Your task to perform on an android device: turn off javascript in the chrome app Image 0: 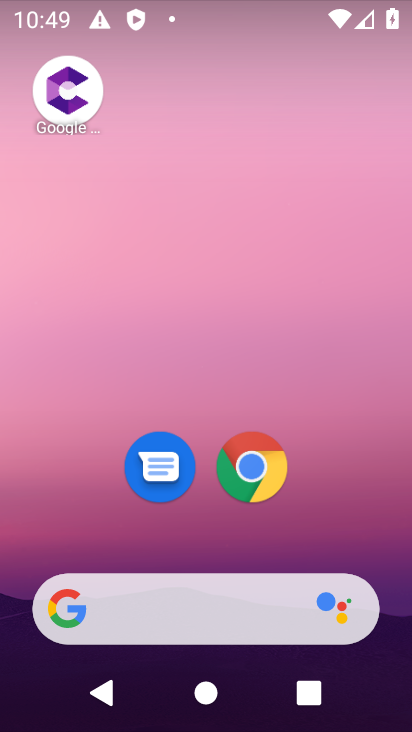
Step 0: drag from (293, 675) to (250, 289)
Your task to perform on an android device: turn off javascript in the chrome app Image 1: 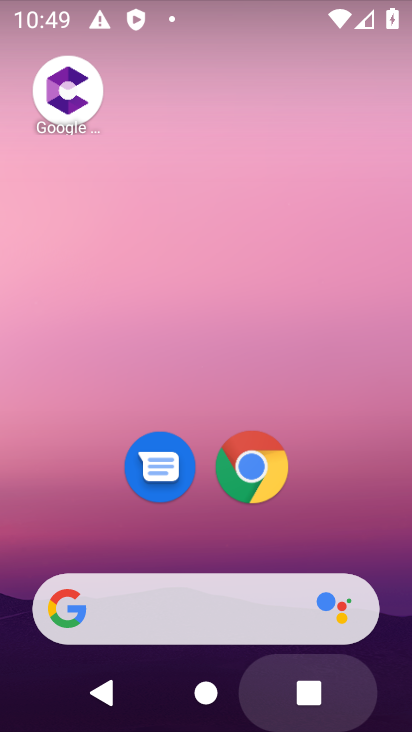
Step 1: drag from (251, 573) to (223, 173)
Your task to perform on an android device: turn off javascript in the chrome app Image 2: 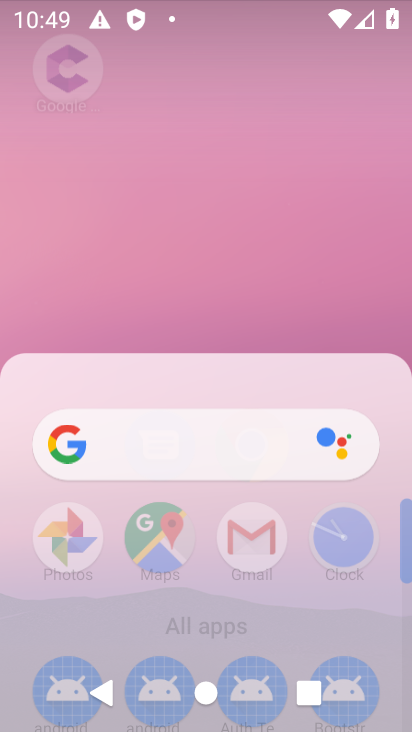
Step 2: drag from (268, 537) to (248, 166)
Your task to perform on an android device: turn off javascript in the chrome app Image 3: 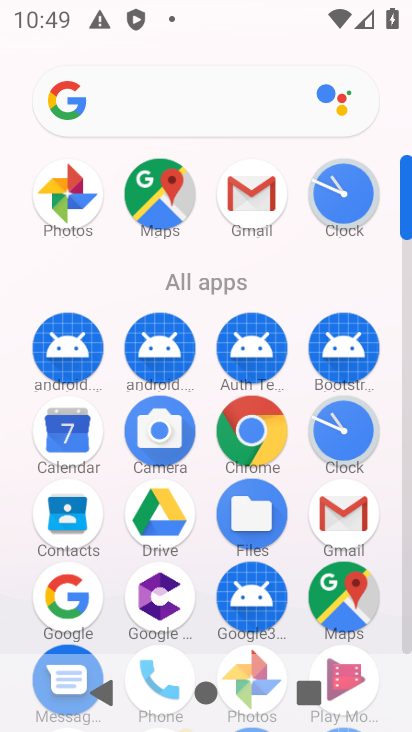
Step 3: drag from (220, 333) to (220, 289)
Your task to perform on an android device: turn off javascript in the chrome app Image 4: 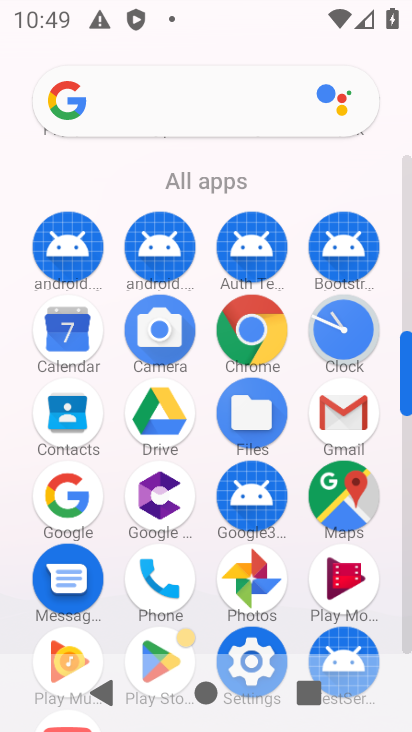
Step 4: drag from (266, 497) to (266, 205)
Your task to perform on an android device: turn off javascript in the chrome app Image 5: 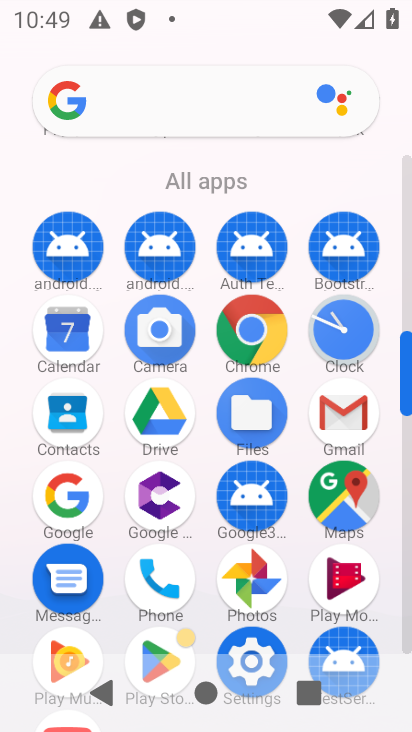
Step 5: click (235, 331)
Your task to perform on an android device: turn off javascript in the chrome app Image 6: 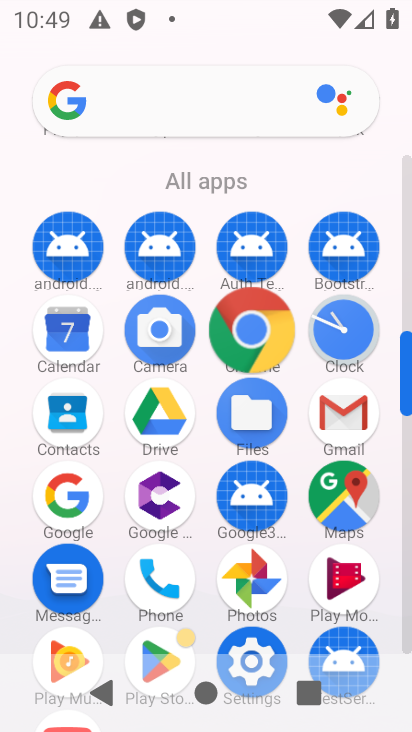
Step 6: click (241, 331)
Your task to perform on an android device: turn off javascript in the chrome app Image 7: 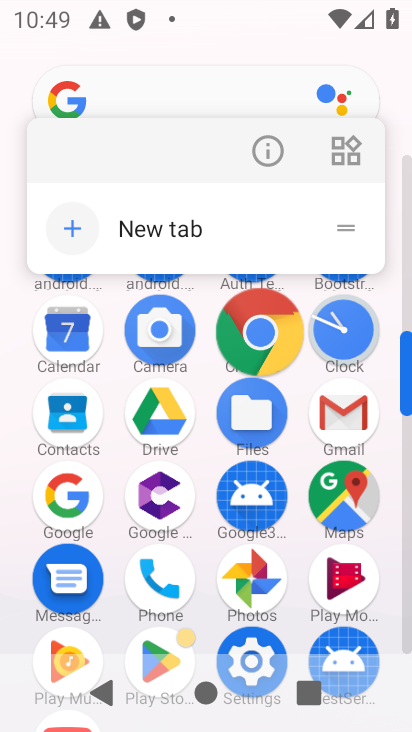
Step 7: click (248, 331)
Your task to perform on an android device: turn off javascript in the chrome app Image 8: 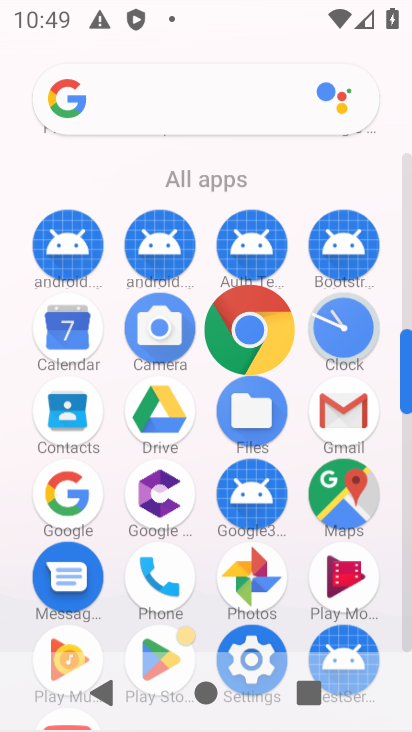
Step 8: click (264, 343)
Your task to perform on an android device: turn off javascript in the chrome app Image 9: 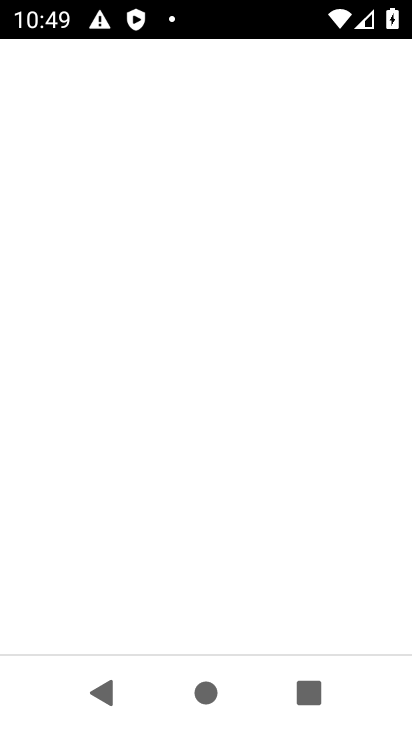
Step 9: click (264, 341)
Your task to perform on an android device: turn off javascript in the chrome app Image 10: 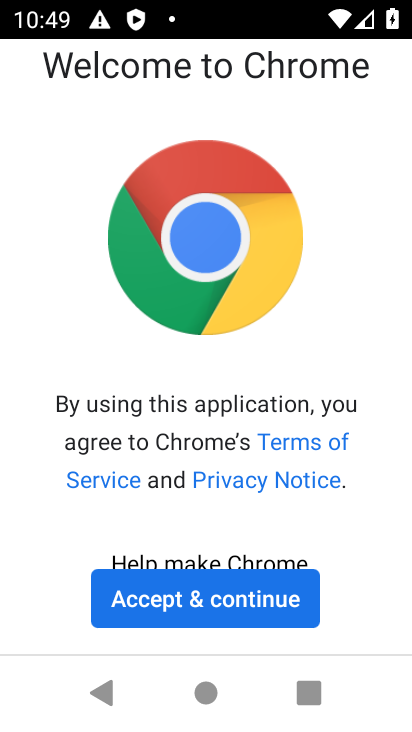
Step 10: click (217, 620)
Your task to perform on an android device: turn off javascript in the chrome app Image 11: 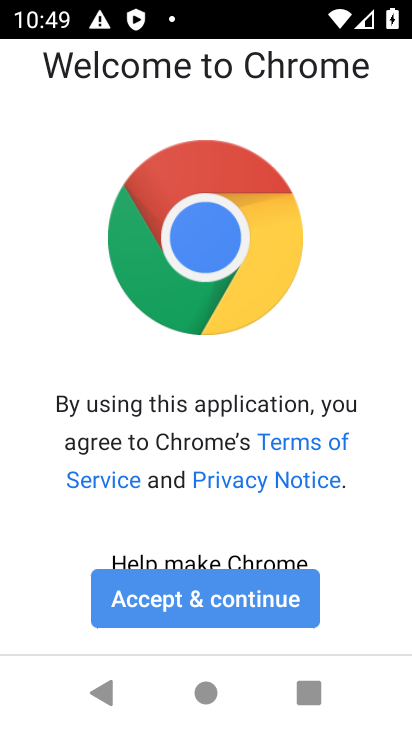
Step 11: click (236, 602)
Your task to perform on an android device: turn off javascript in the chrome app Image 12: 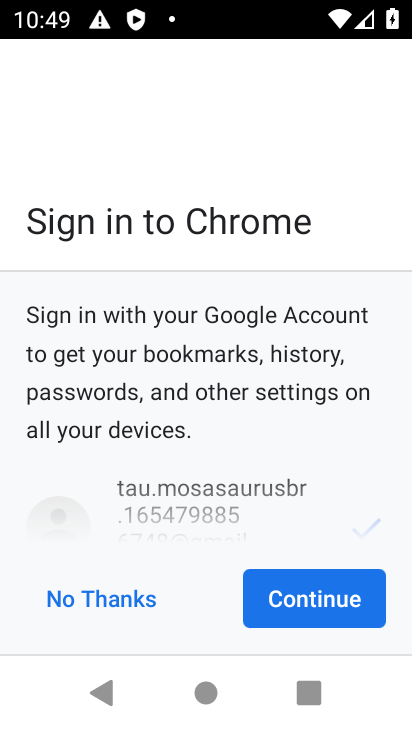
Step 12: click (93, 615)
Your task to perform on an android device: turn off javascript in the chrome app Image 13: 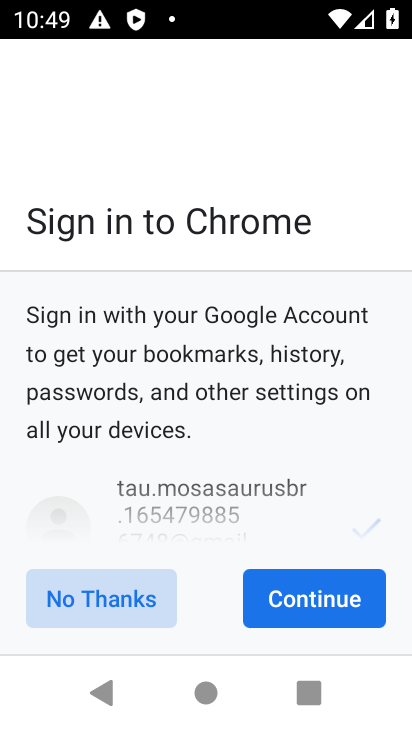
Step 13: click (95, 602)
Your task to perform on an android device: turn off javascript in the chrome app Image 14: 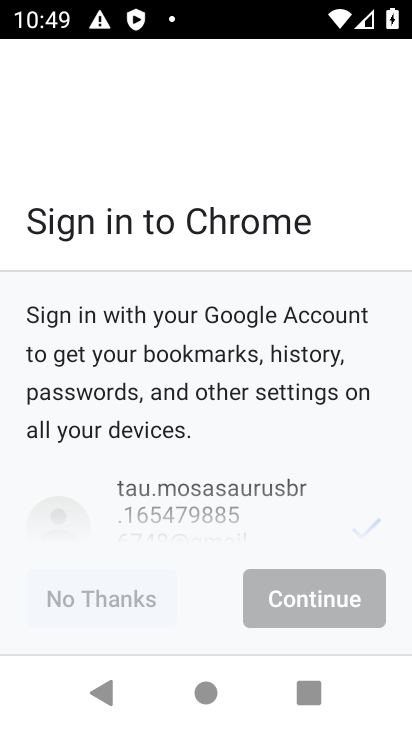
Step 14: click (95, 584)
Your task to perform on an android device: turn off javascript in the chrome app Image 15: 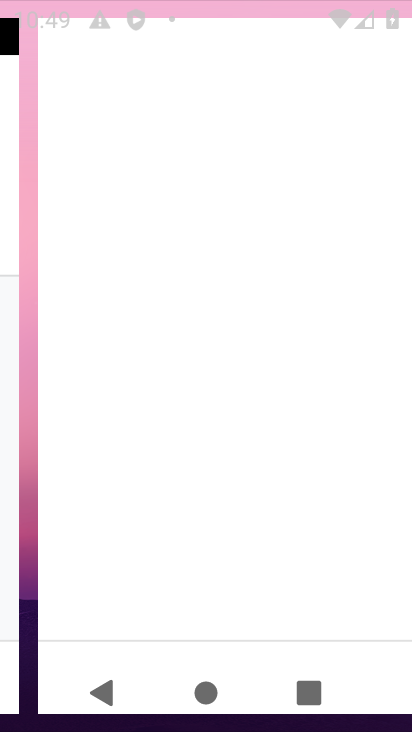
Step 15: click (95, 593)
Your task to perform on an android device: turn off javascript in the chrome app Image 16: 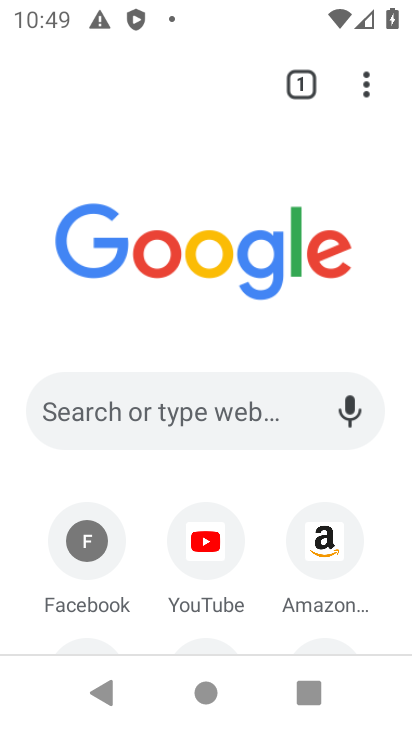
Step 16: click (365, 93)
Your task to perform on an android device: turn off javascript in the chrome app Image 17: 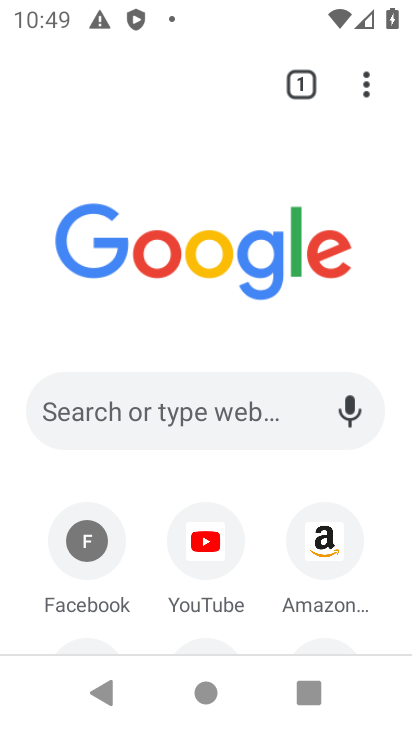
Step 17: click (365, 96)
Your task to perform on an android device: turn off javascript in the chrome app Image 18: 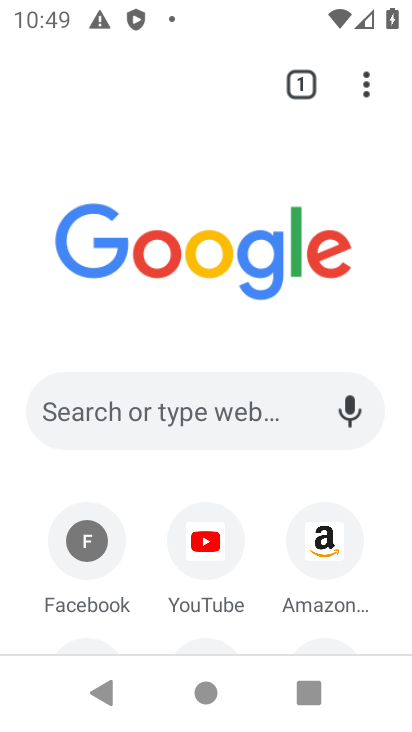
Step 18: click (370, 98)
Your task to perform on an android device: turn off javascript in the chrome app Image 19: 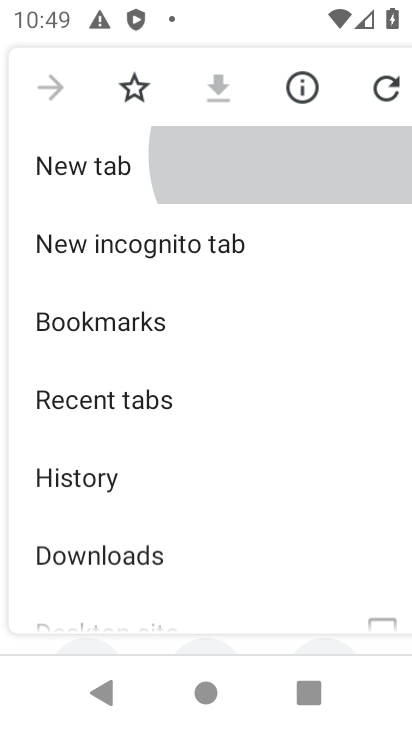
Step 19: click (371, 94)
Your task to perform on an android device: turn off javascript in the chrome app Image 20: 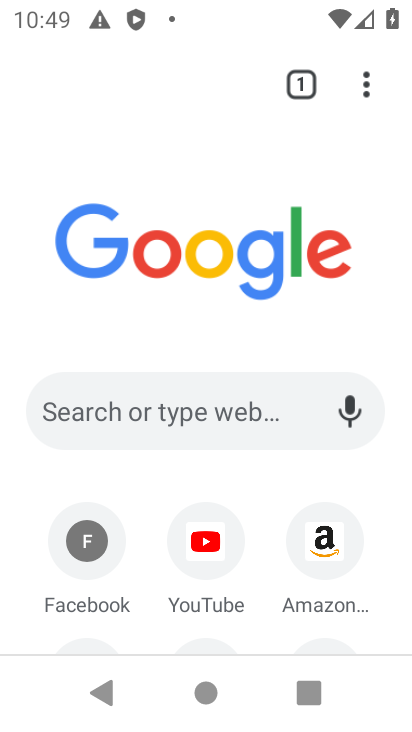
Step 20: click (371, 94)
Your task to perform on an android device: turn off javascript in the chrome app Image 21: 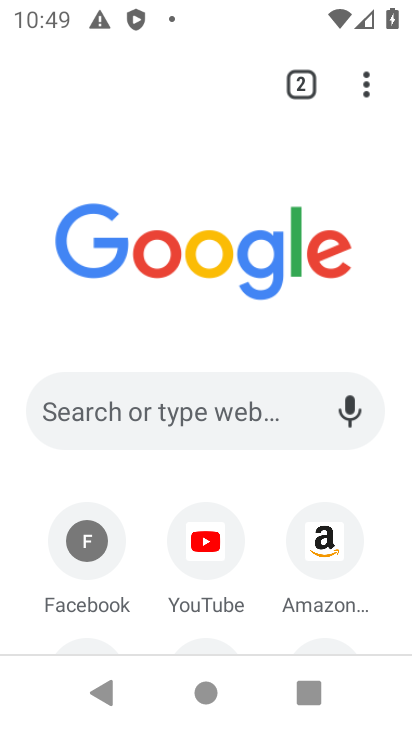
Step 21: click (368, 87)
Your task to perform on an android device: turn off javascript in the chrome app Image 22: 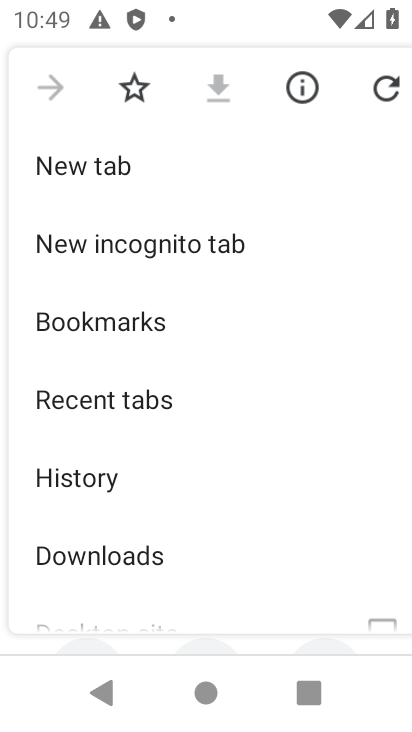
Step 22: drag from (128, 544) to (121, 253)
Your task to perform on an android device: turn off javascript in the chrome app Image 23: 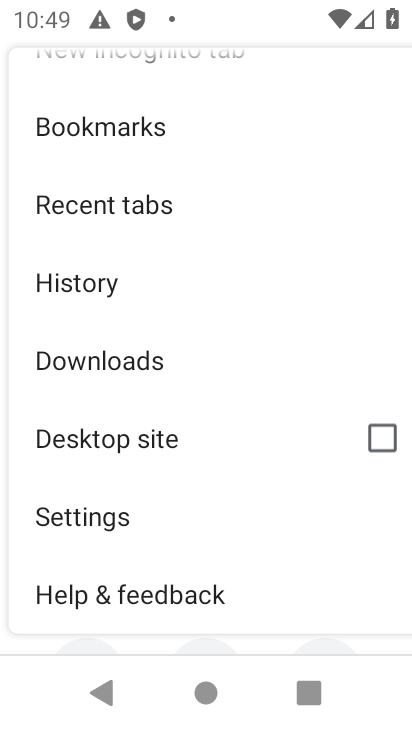
Step 23: drag from (114, 399) to (119, 270)
Your task to perform on an android device: turn off javascript in the chrome app Image 24: 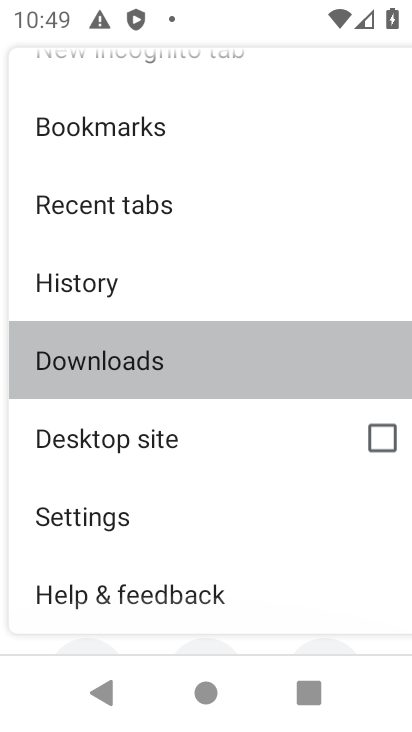
Step 24: drag from (175, 421) to (175, 291)
Your task to perform on an android device: turn off javascript in the chrome app Image 25: 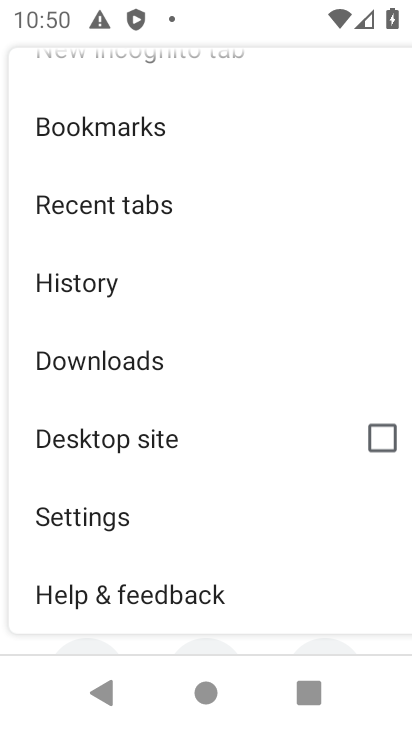
Step 25: click (70, 516)
Your task to perform on an android device: turn off javascript in the chrome app Image 26: 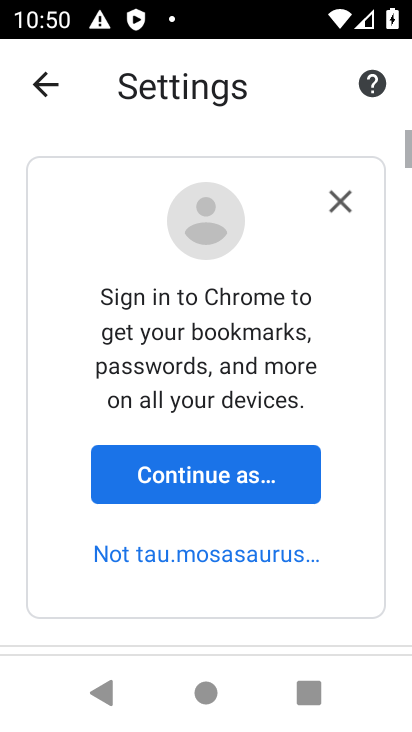
Step 26: click (351, 202)
Your task to perform on an android device: turn off javascript in the chrome app Image 27: 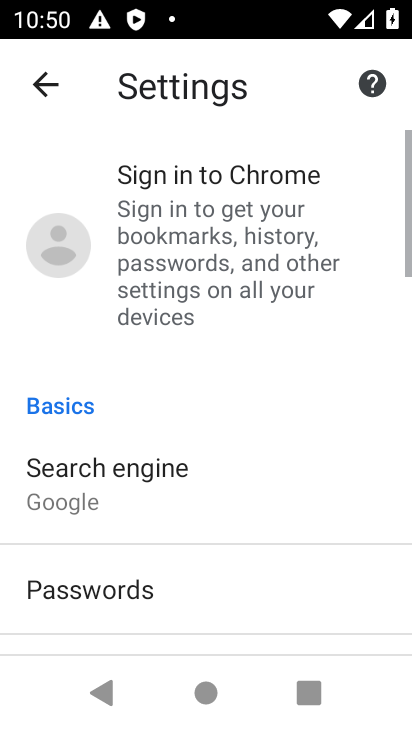
Step 27: drag from (207, 567) to (244, 250)
Your task to perform on an android device: turn off javascript in the chrome app Image 28: 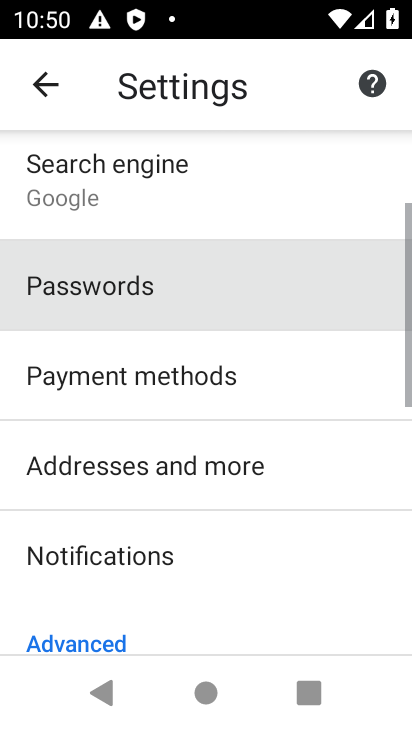
Step 28: drag from (214, 248) to (214, 208)
Your task to perform on an android device: turn off javascript in the chrome app Image 29: 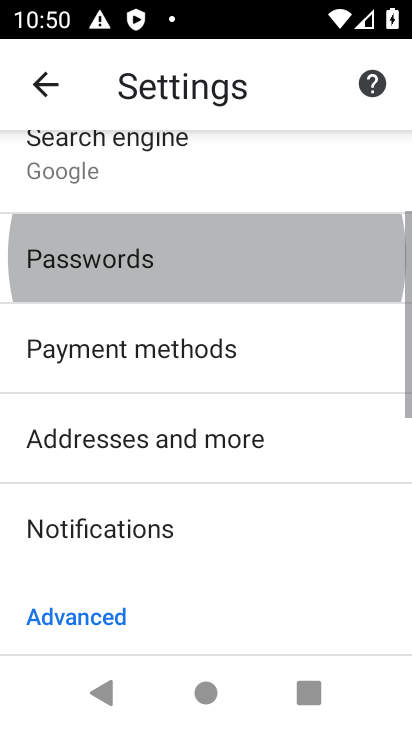
Step 29: drag from (220, 400) to (261, 77)
Your task to perform on an android device: turn off javascript in the chrome app Image 30: 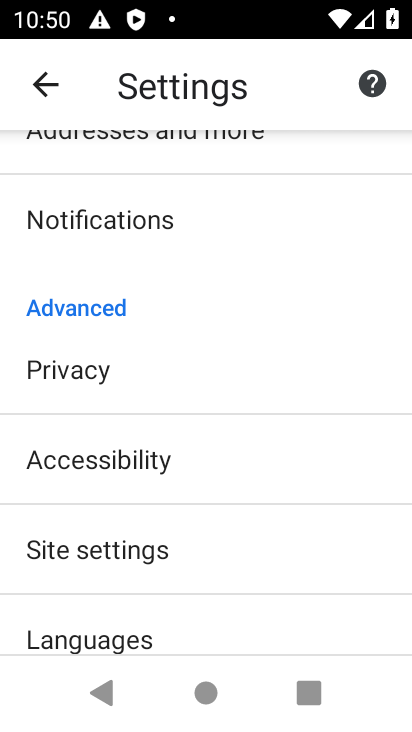
Step 30: drag from (126, 566) to (73, 275)
Your task to perform on an android device: turn off javascript in the chrome app Image 31: 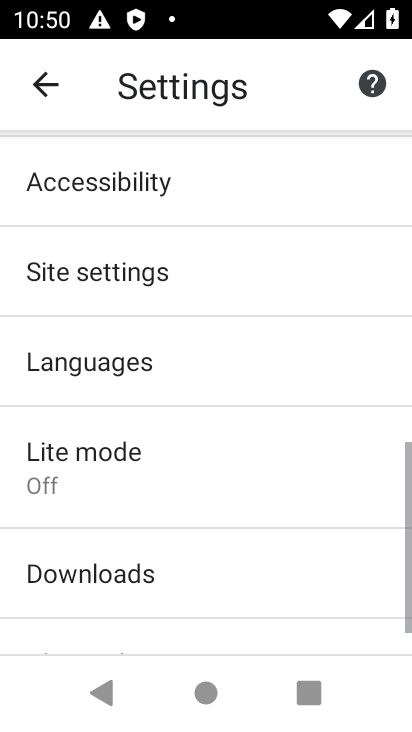
Step 31: drag from (165, 432) to (163, 395)
Your task to perform on an android device: turn off javascript in the chrome app Image 32: 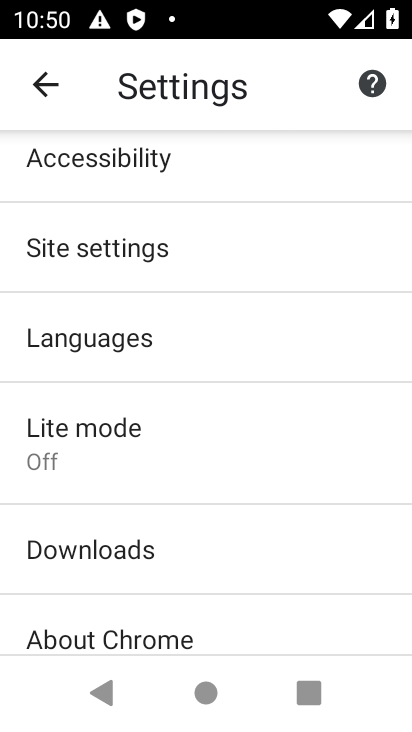
Step 32: click (76, 247)
Your task to perform on an android device: turn off javascript in the chrome app Image 33: 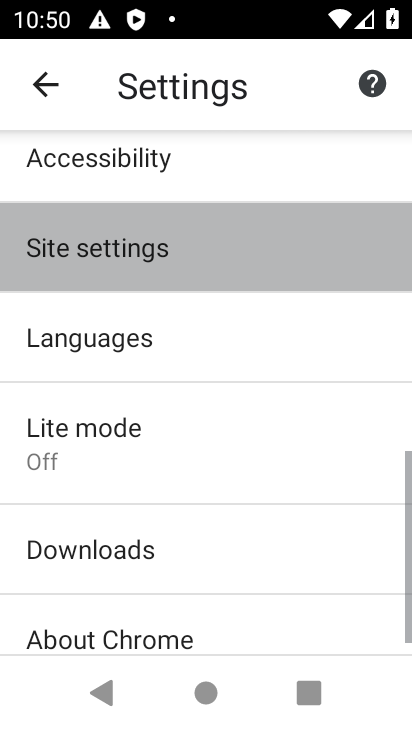
Step 33: click (81, 248)
Your task to perform on an android device: turn off javascript in the chrome app Image 34: 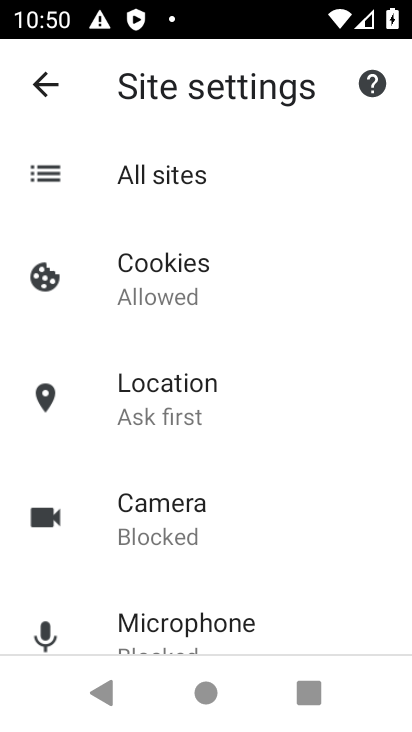
Step 34: drag from (169, 534) to (179, 255)
Your task to perform on an android device: turn off javascript in the chrome app Image 35: 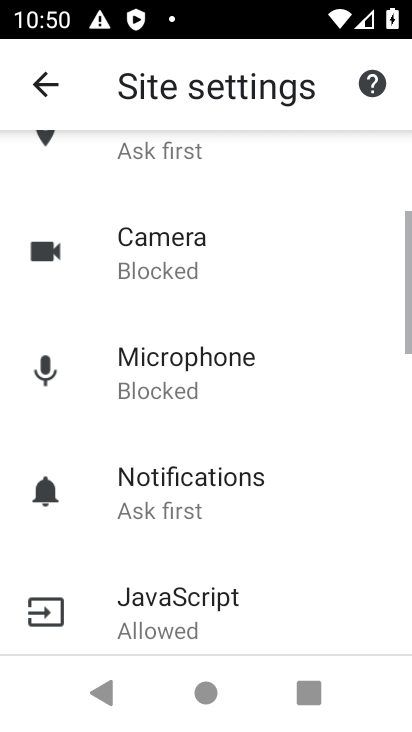
Step 35: drag from (189, 435) to (194, 227)
Your task to perform on an android device: turn off javascript in the chrome app Image 36: 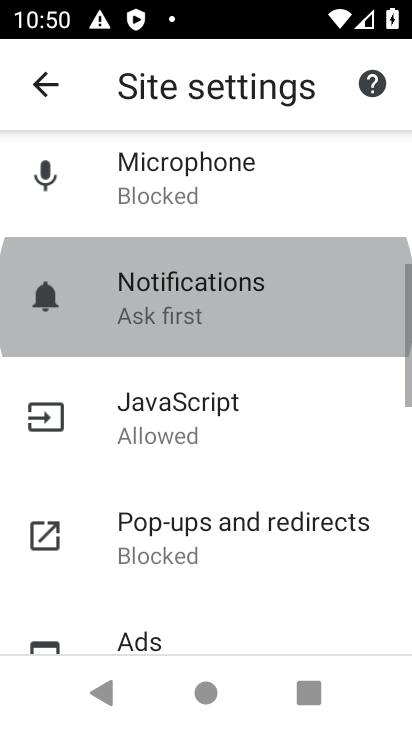
Step 36: drag from (201, 481) to (206, 303)
Your task to perform on an android device: turn off javascript in the chrome app Image 37: 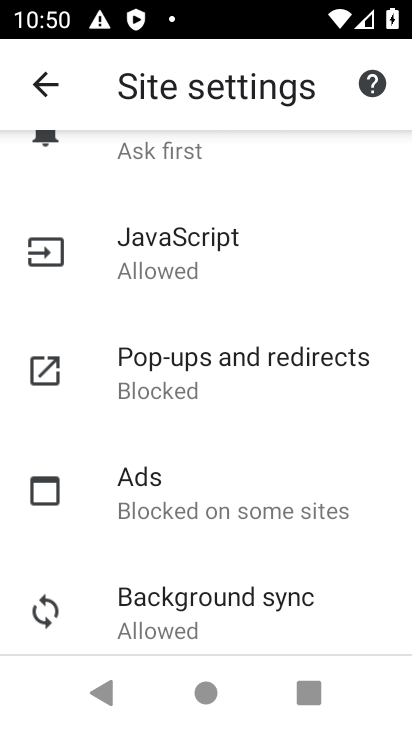
Step 37: click (165, 245)
Your task to perform on an android device: turn off javascript in the chrome app Image 38: 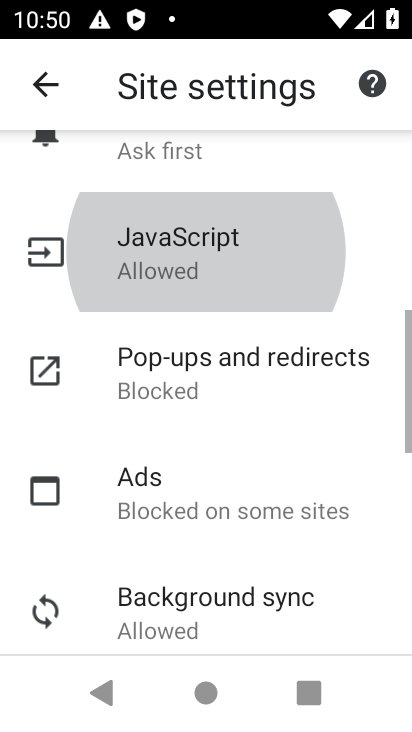
Step 38: click (165, 245)
Your task to perform on an android device: turn off javascript in the chrome app Image 39: 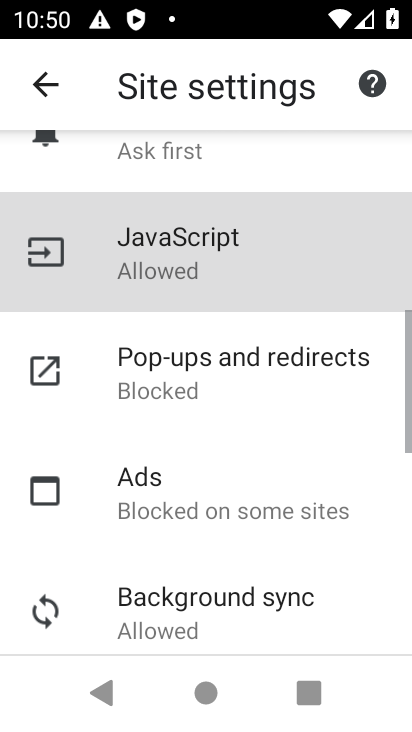
Step 39: click (168, 244)
Your task to perform on an android device: turn off javascript in the chrome app Image 40: 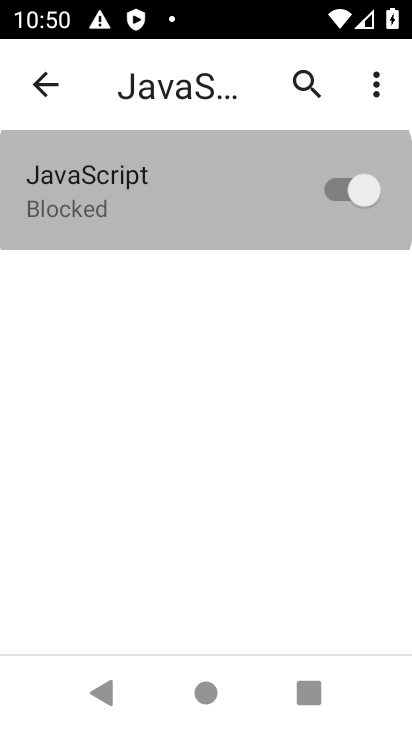
Step 40: click (172, 245)
Your task to perform on an android device: turn off javascript in the chrome app Image 41: 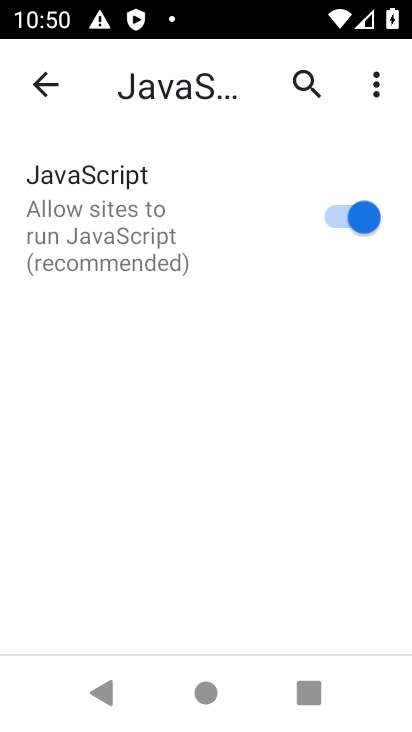
Step 41: task complete